Your task to perform on an android device: Search for vegetarian restaurants on Maps Image 0: 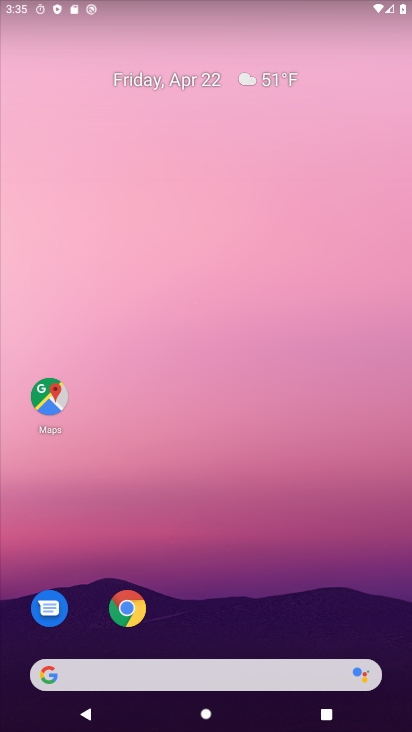
Step 0: drag from (262, 556) to (257, 205)
Your task to perform on an android device: Search for vegetarian restaurants on Maps Image 1: 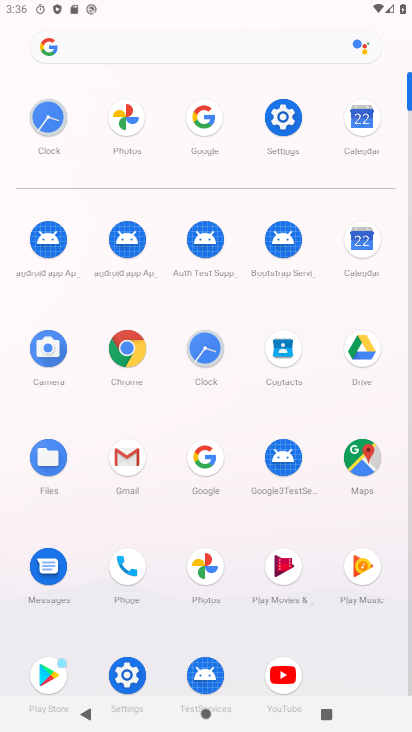
Step 1: click (361, 461)
Your task to perform on an android device: Search for vegetarian restaurants on Maps Image 2: 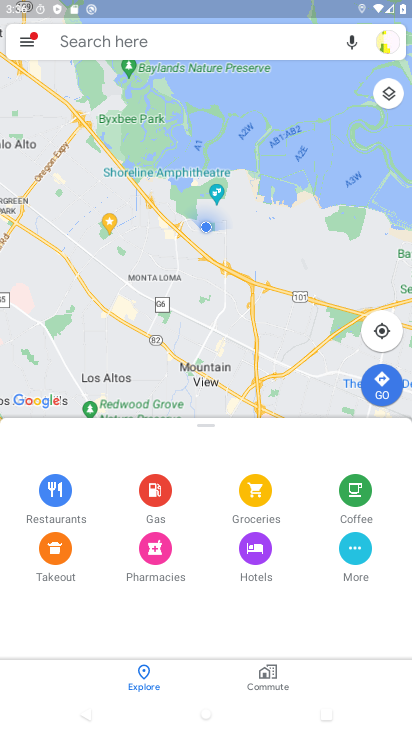
Step 2: click (146, 44)
Your task to perform on an android device: Search for vegetarian restaurants on Maps Image 3: 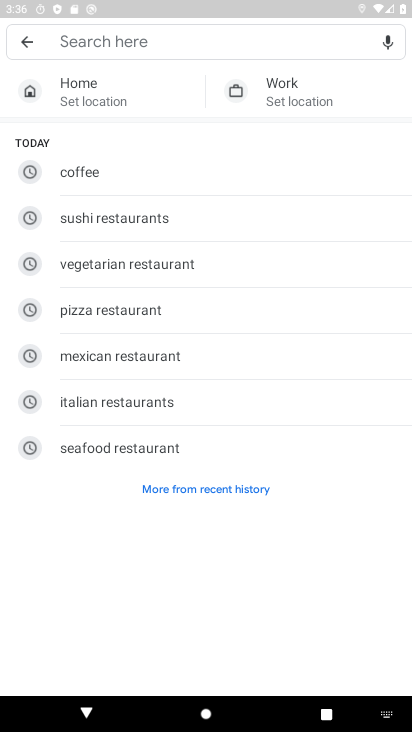
Step 3: click (170, 266)
Your task to perform on an android device: Search for vegetarian restaurants on Maps Image 4: 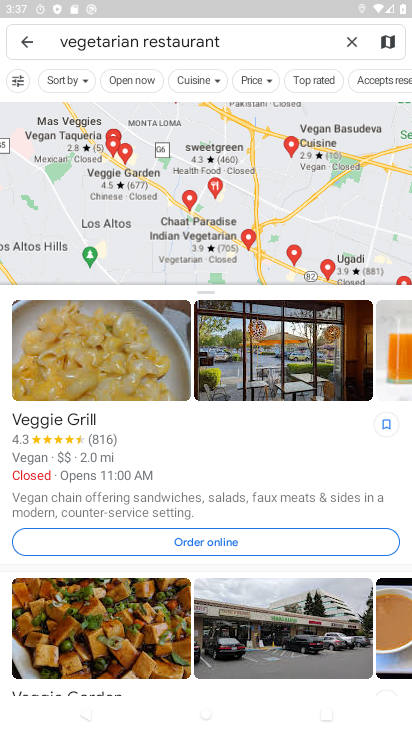
Step 4: task complete